Your task to perform on an android device: turn off airplane mode Image 0: 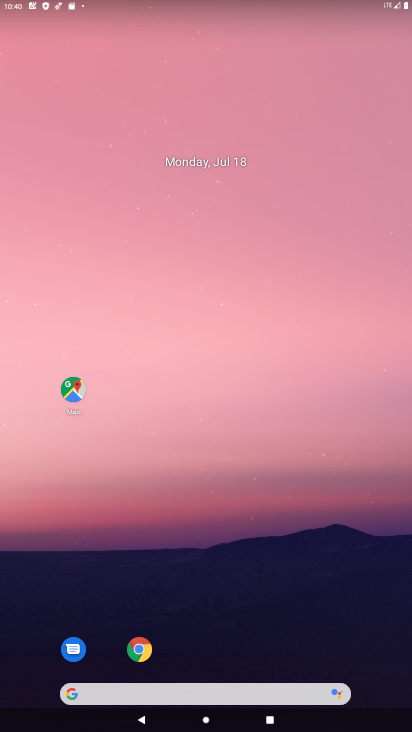
Step 0: drag from (188, 720) to (255, 70)
Your task to perform on an android device: turn off airplane mode Image 1: 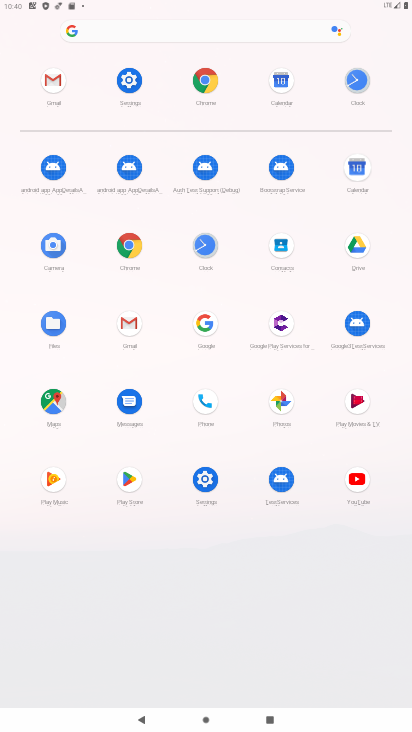
Step 1: click (130, 85)
Your task to perform on an android device: turn off airplane mode Image 2: 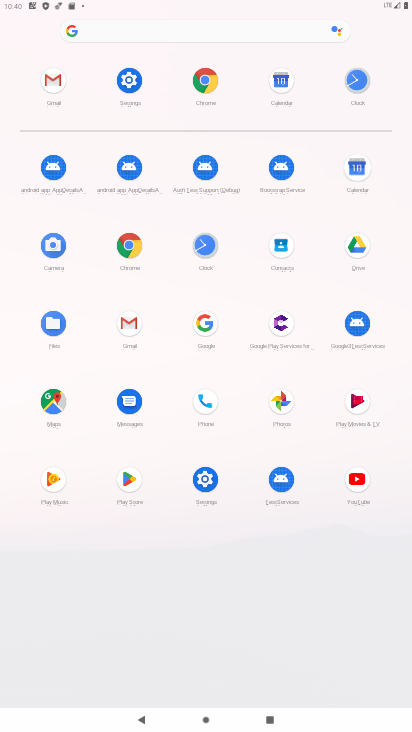
Step 2: click (130, 85)
Your task to perform on an android device: turn off airplane mode Image 3: 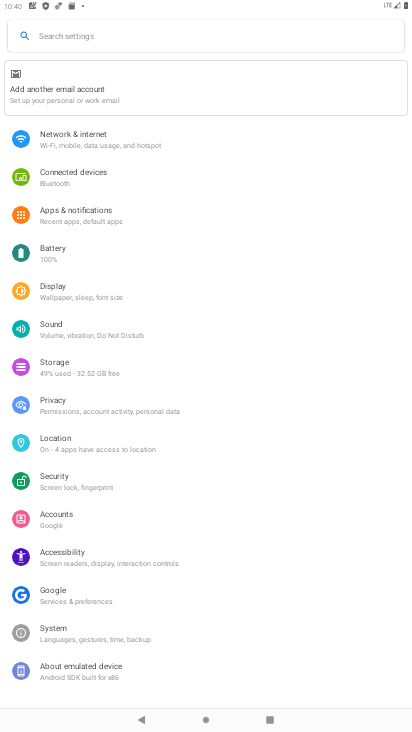
Step 3: click (112, 146)
Your task to perform on an android device: turn off airplane mode Image 4: 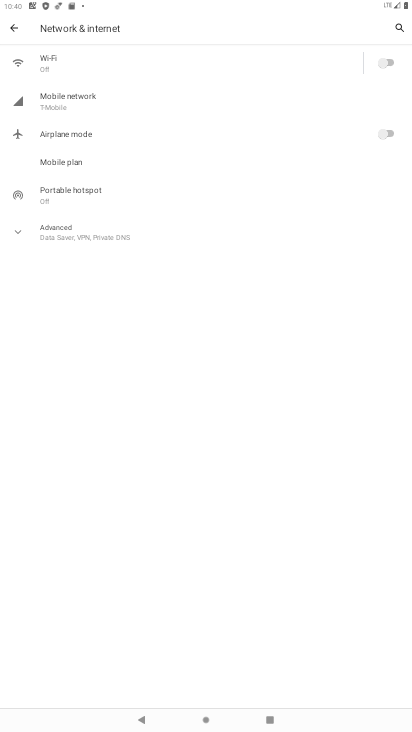
Step 4: task complete